Your task to perform on an android device: delete a single message in the gmail app Image 0: 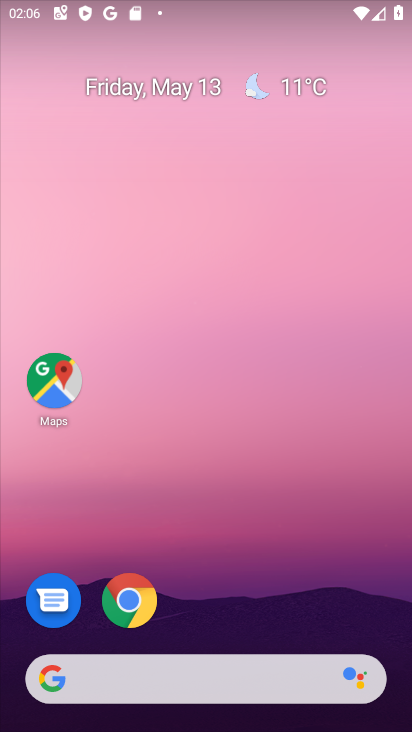
Step 0: drag from (192, 636) to (223, 207)
Your task to perform on an android device: delete a single message in the gmail app Image 1: 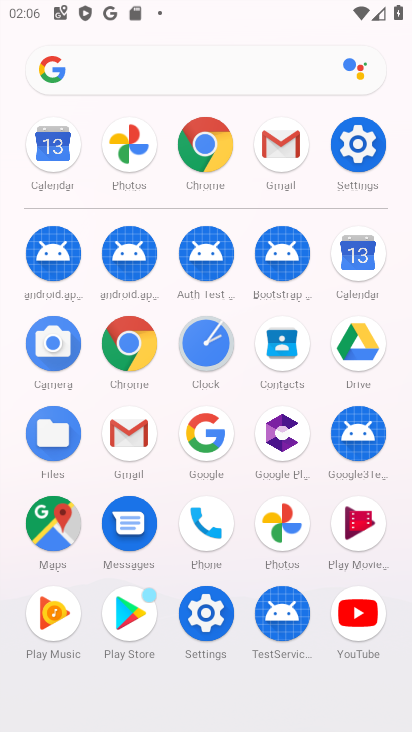
Step 1: click (131, 430)
Your task to perform on an android device: delete a single message in the gmail app Image 2: 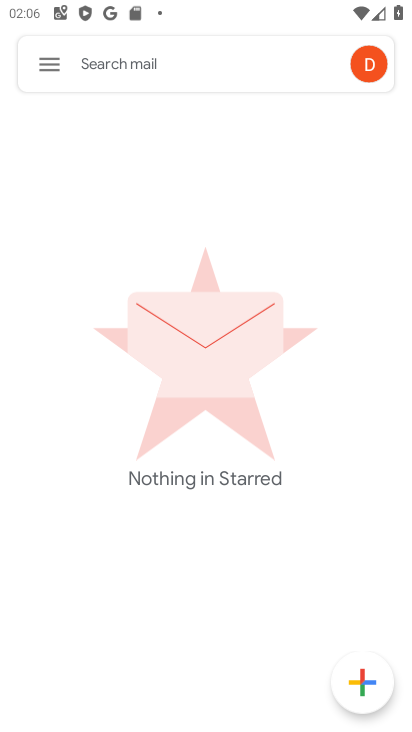
Step 2: click (60, 65)
Your task to perform on an android device: delete a single message in the gmail app Image 3: 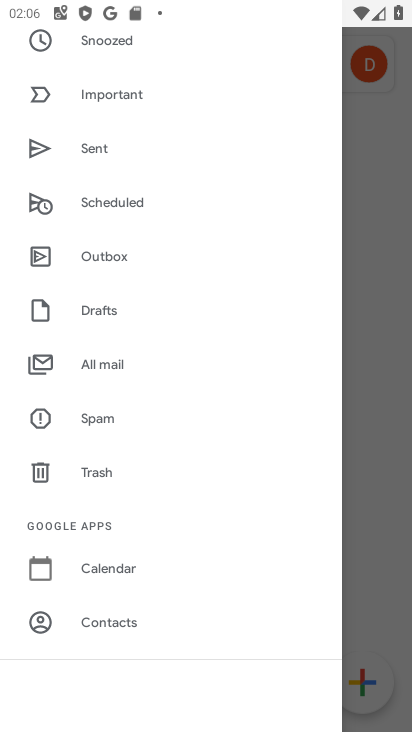
Step 3: drag from (183, 198) to (155, 642)
Your task to perform on an android device: delete a single message in the gmail app Image 4: 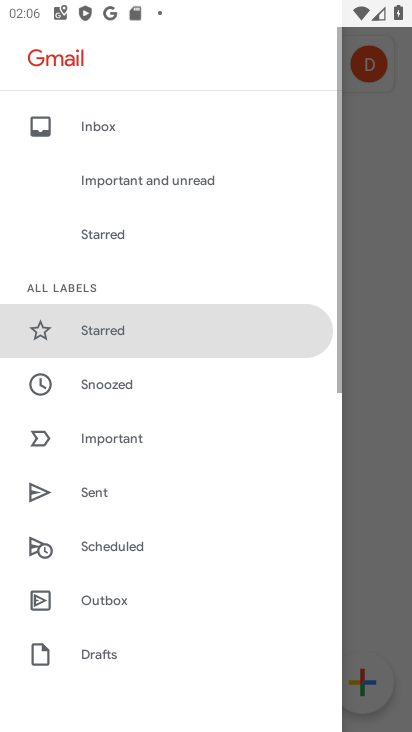
Step 4: click (113, 136)
Your task to perform on an android device: delete a single message in the gmail app Image 5: 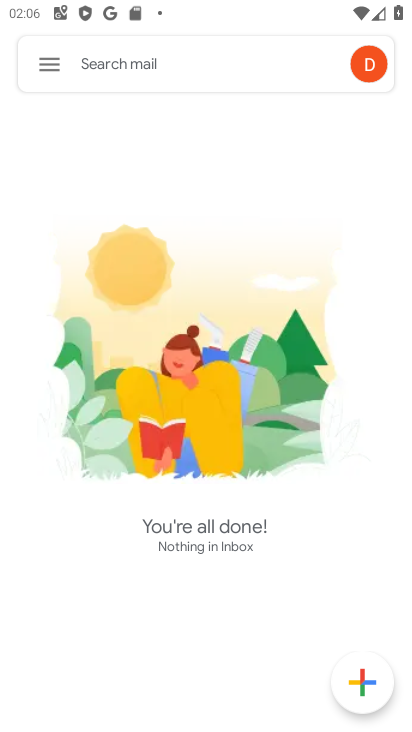
Step 5: click (47, 57)
Your task to perform on an android device: delete a single message in the gmail app Image 6: 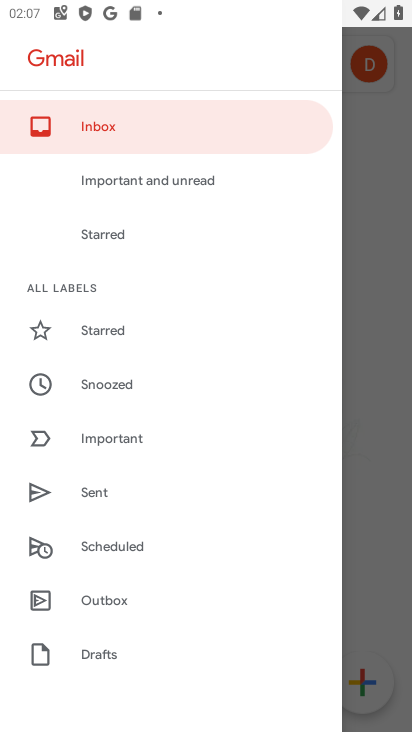
Step 6: click (373, 372)
Your task to perform on an android device: delete a single message in the gmail app Image 7: 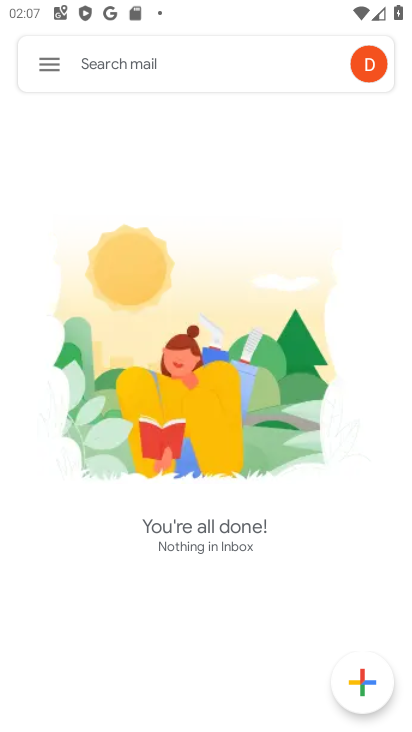
Step 7: task complete